Your task to perform on an android device: Search for pizza restaurants on Maps Image 0: 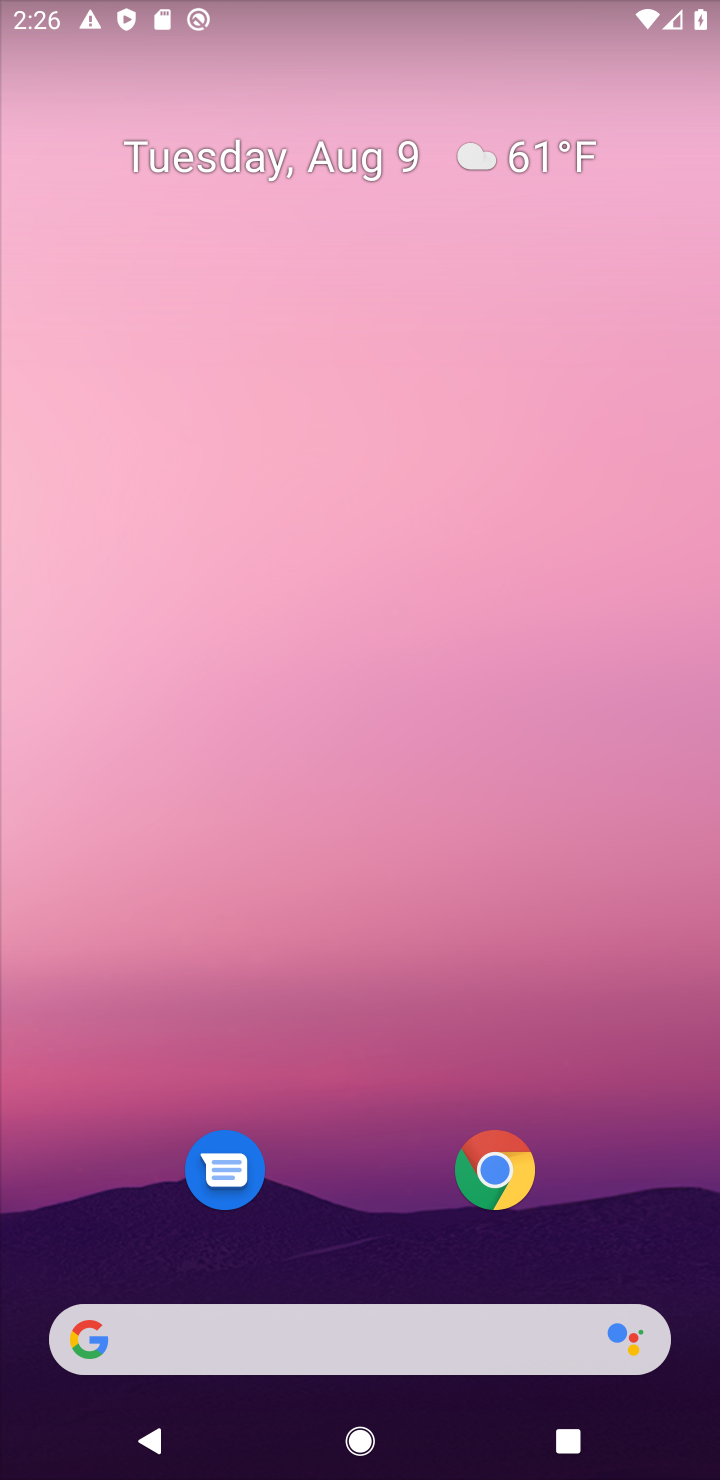
Step 0: press home button
Your task to perform on an android device: Search for pizza restaurants on Maps Image 1: 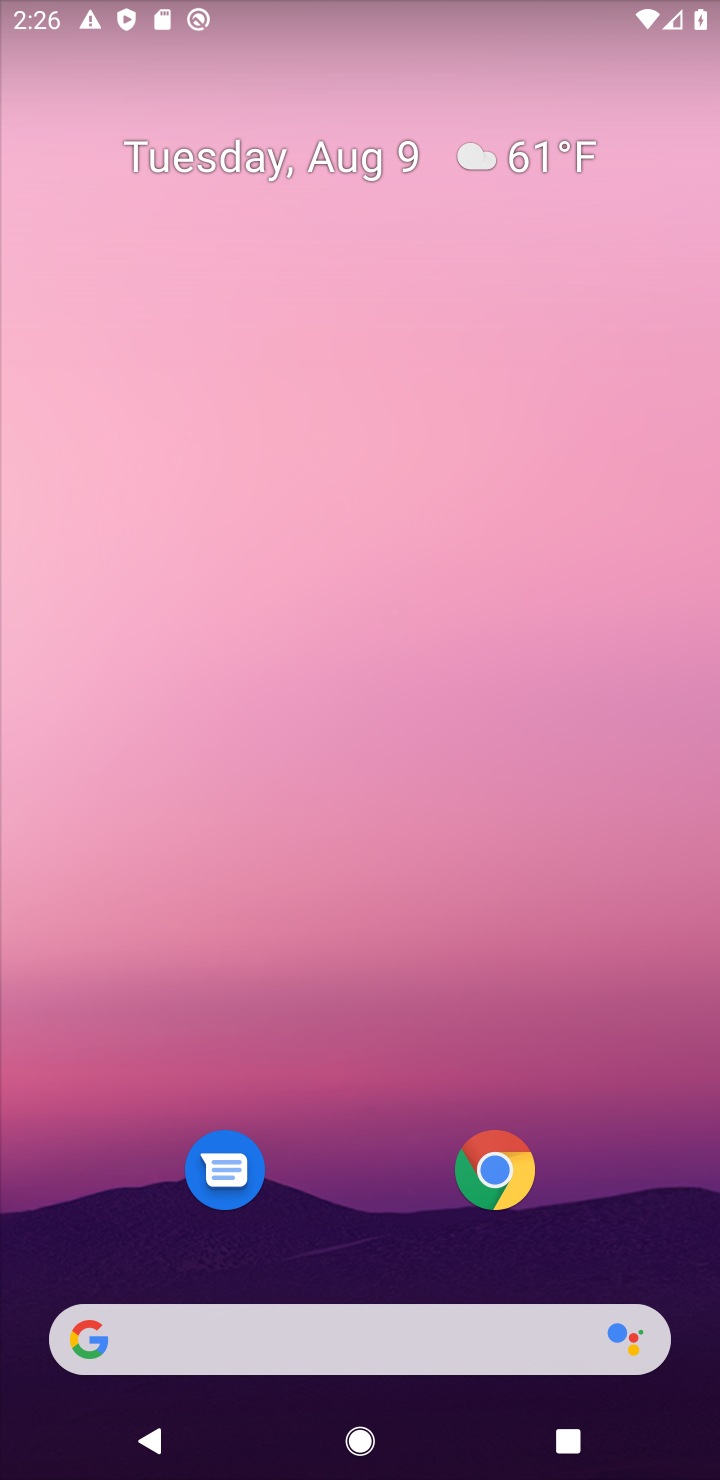
Step 1: press home button
Your task to perform on an android device: Search for pizza restaurants on Maps Image 2: 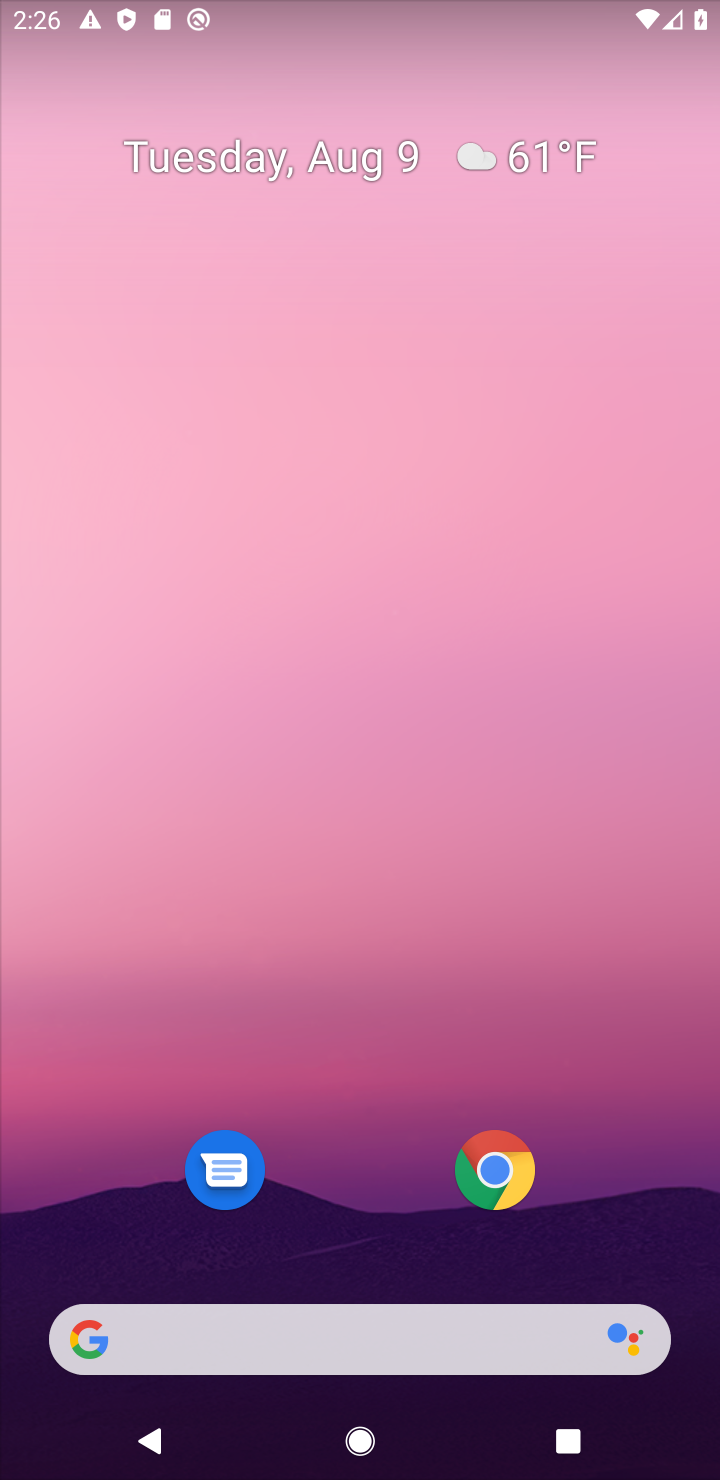
Step 2: drag from (391, 62) to (518, 48)
Your task to perform on an android device: Search for pizza restaurants on Maps Image 3: 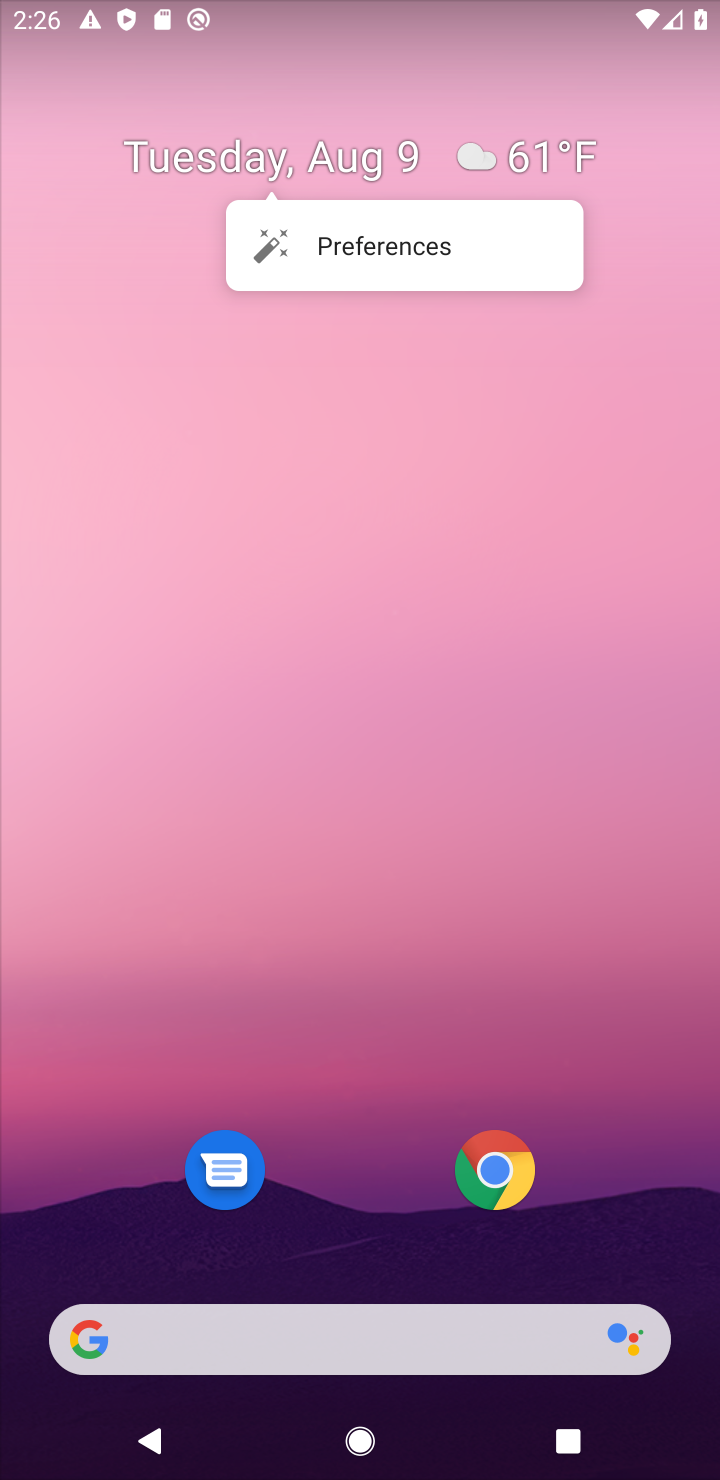
Step 3: drag from (324, 547) to (295, 58)
Your task to perform on an android device: Search for pizza restaurants on Maps Image 4: 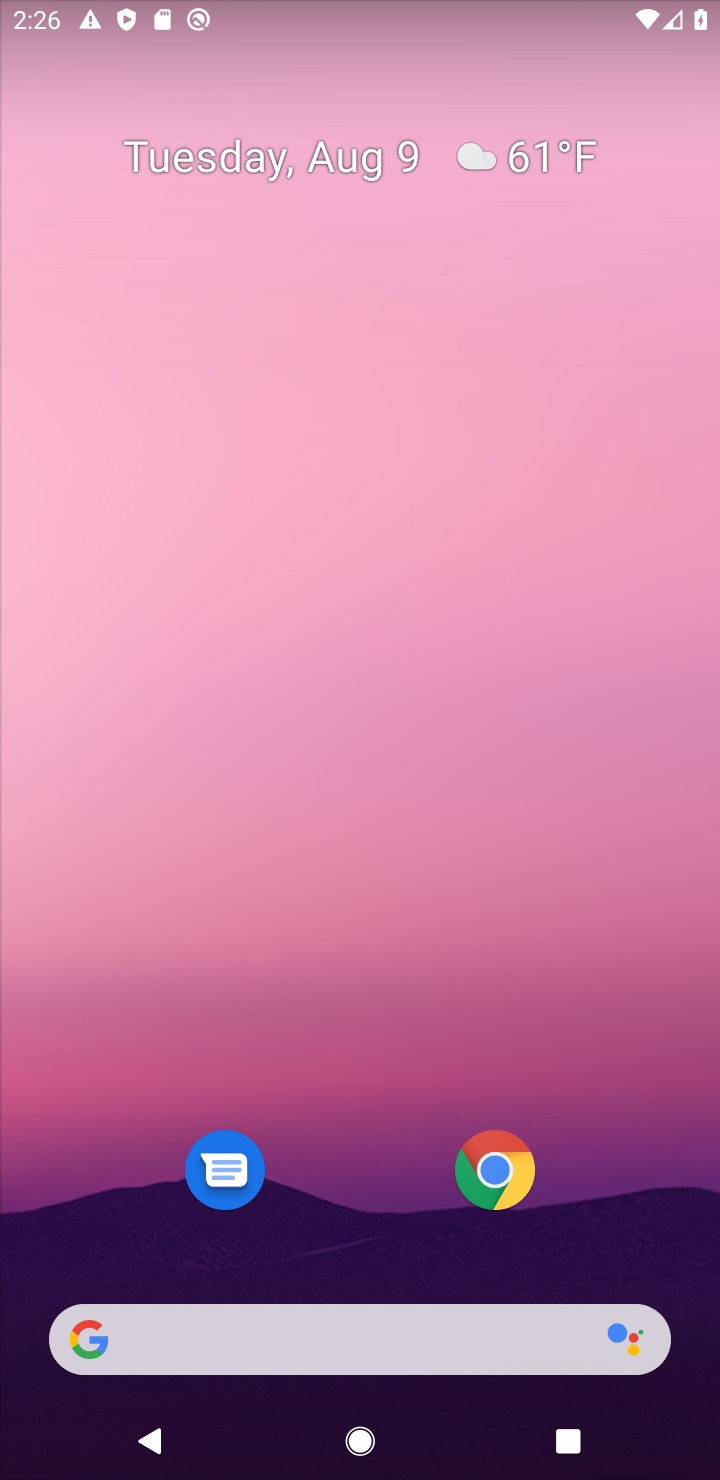
Step 4: drag from (376, 1240) to (483, 117)
Your task to perform on an android device: Search for pizza restaurants on Maps Image 5: 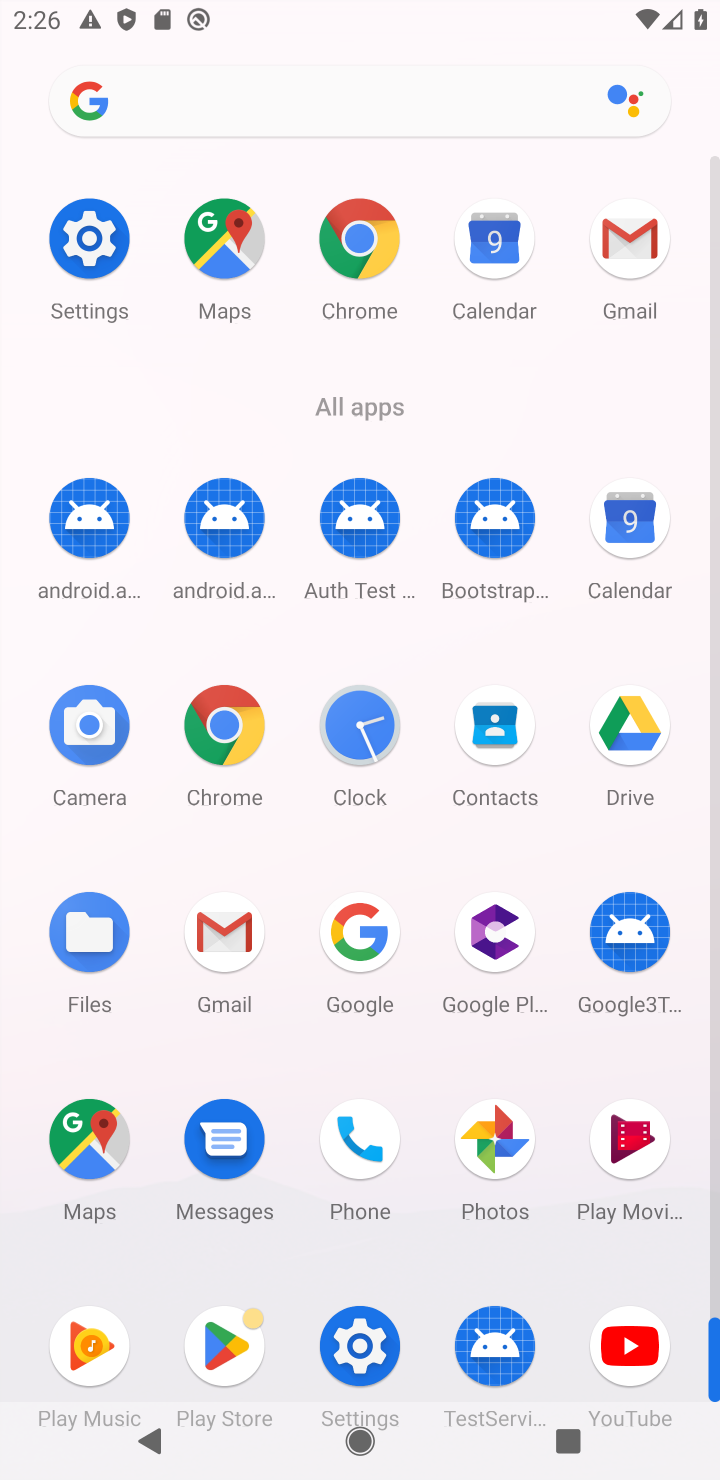
Step 5: click (93, 1166)
Your task to perform on an android device: Search for pizza restaurants on Maps Image 6: 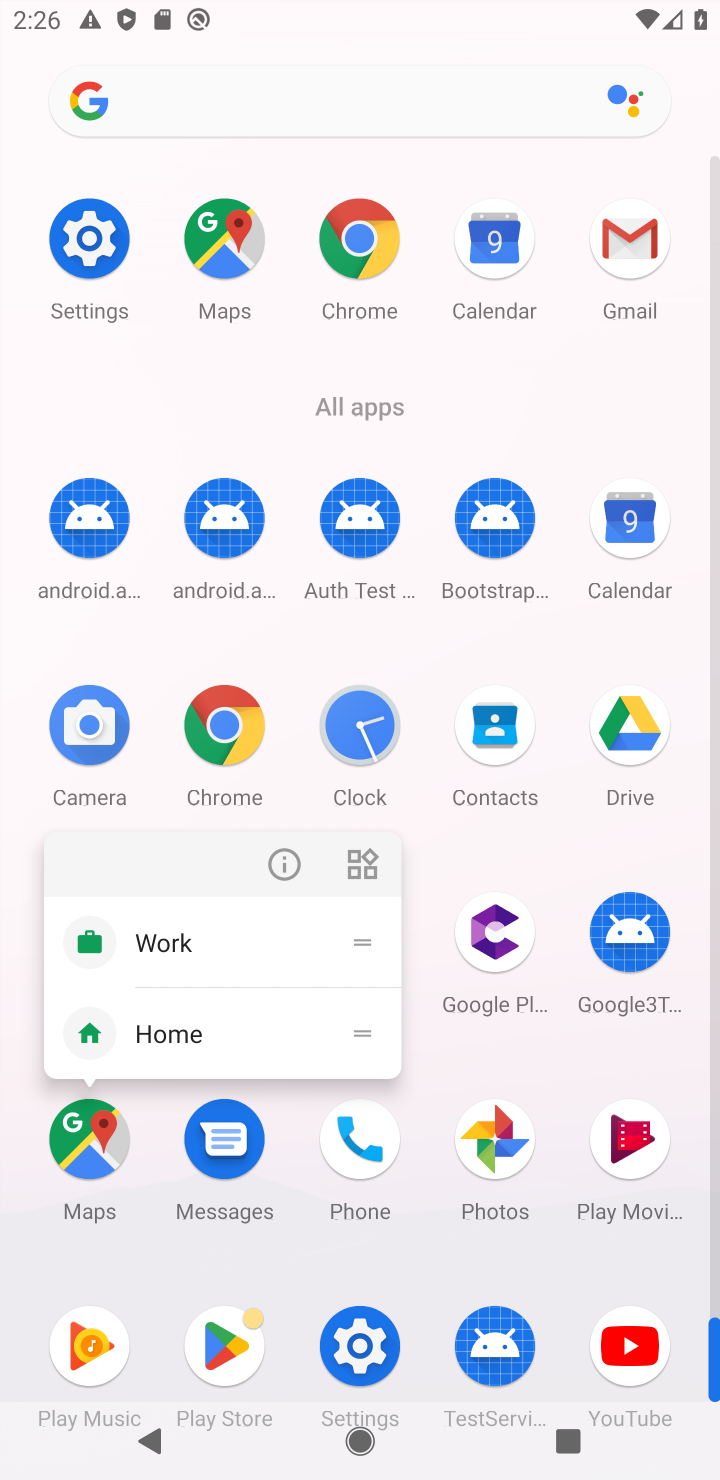
Step 6: click (93, 1166)
Your task to perform on an android device: Search for pizza restaurants on Maps Image 7: 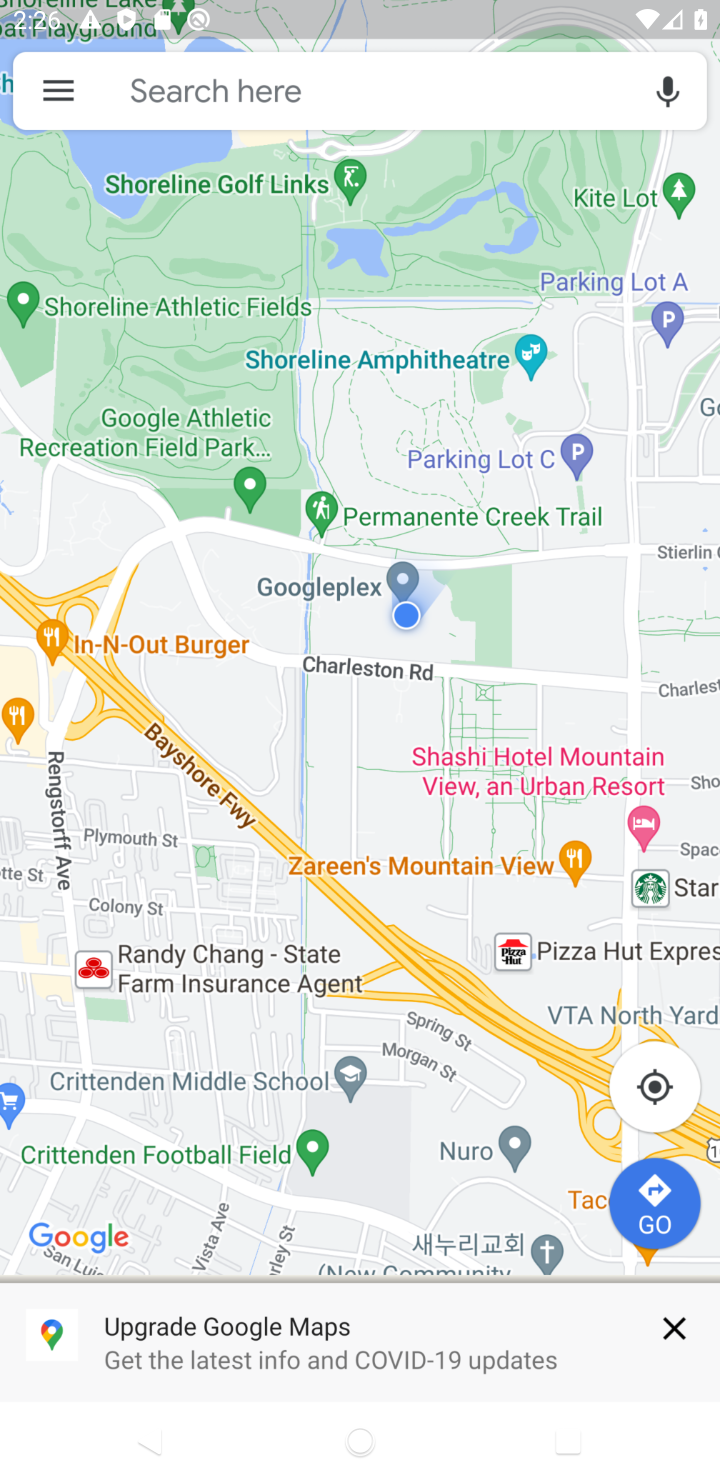
Step 7: click (444, 109)
Your task to perform on an android device: Search for pizza restaurants on Maps Image 8: 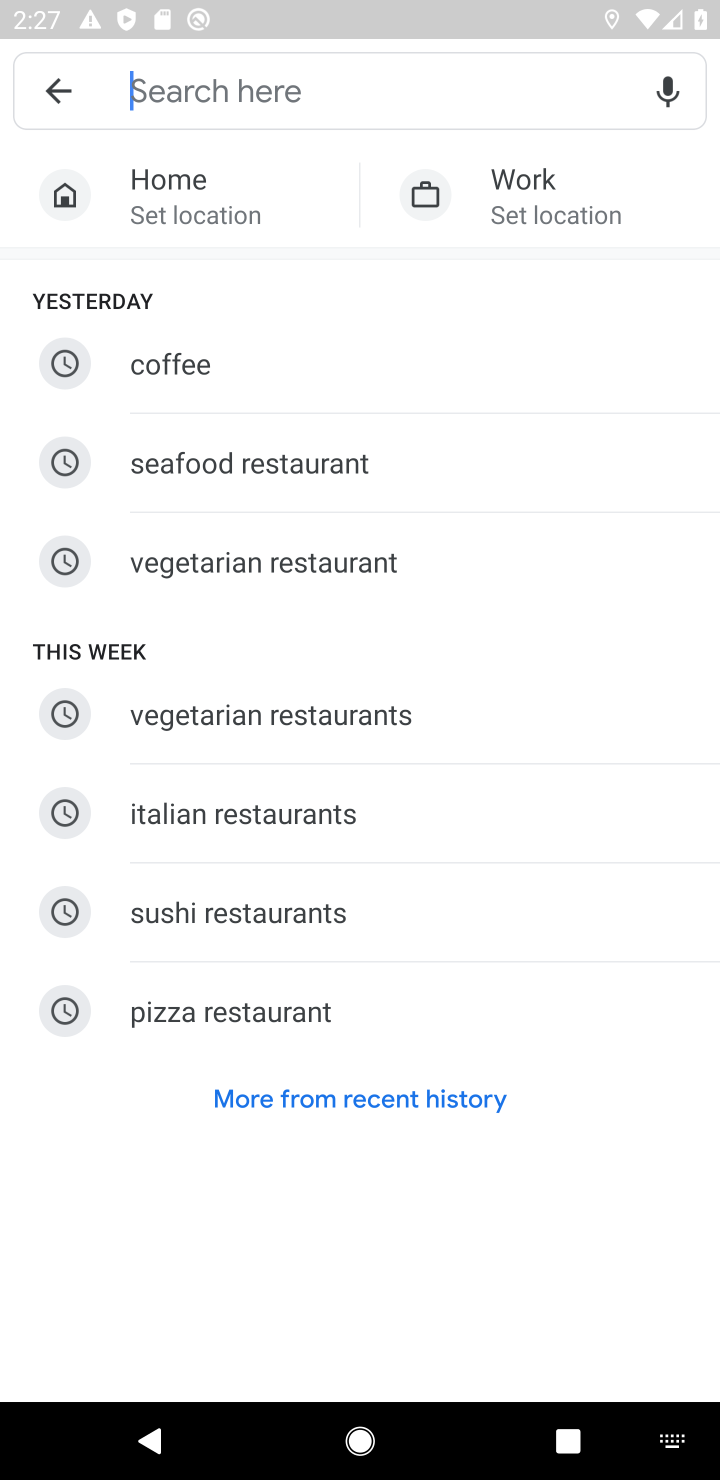
Step 8: type "Pizza restaurants"
Your task to perform on an android device: Search for pizza restaurants on Maps Image 9: 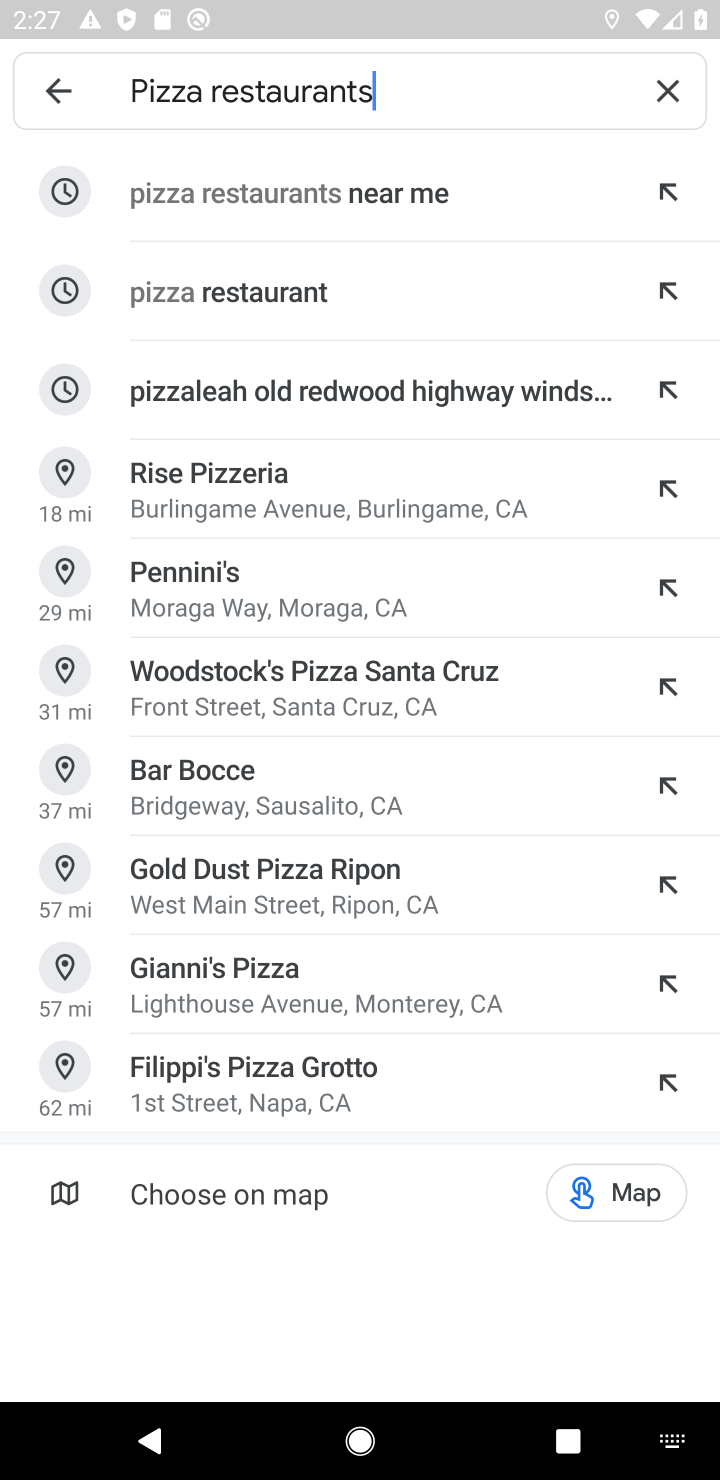
Step 9: click (359, 195)
Your task to perform on an android device: Search for pizza restaurants on Maps Image 10: 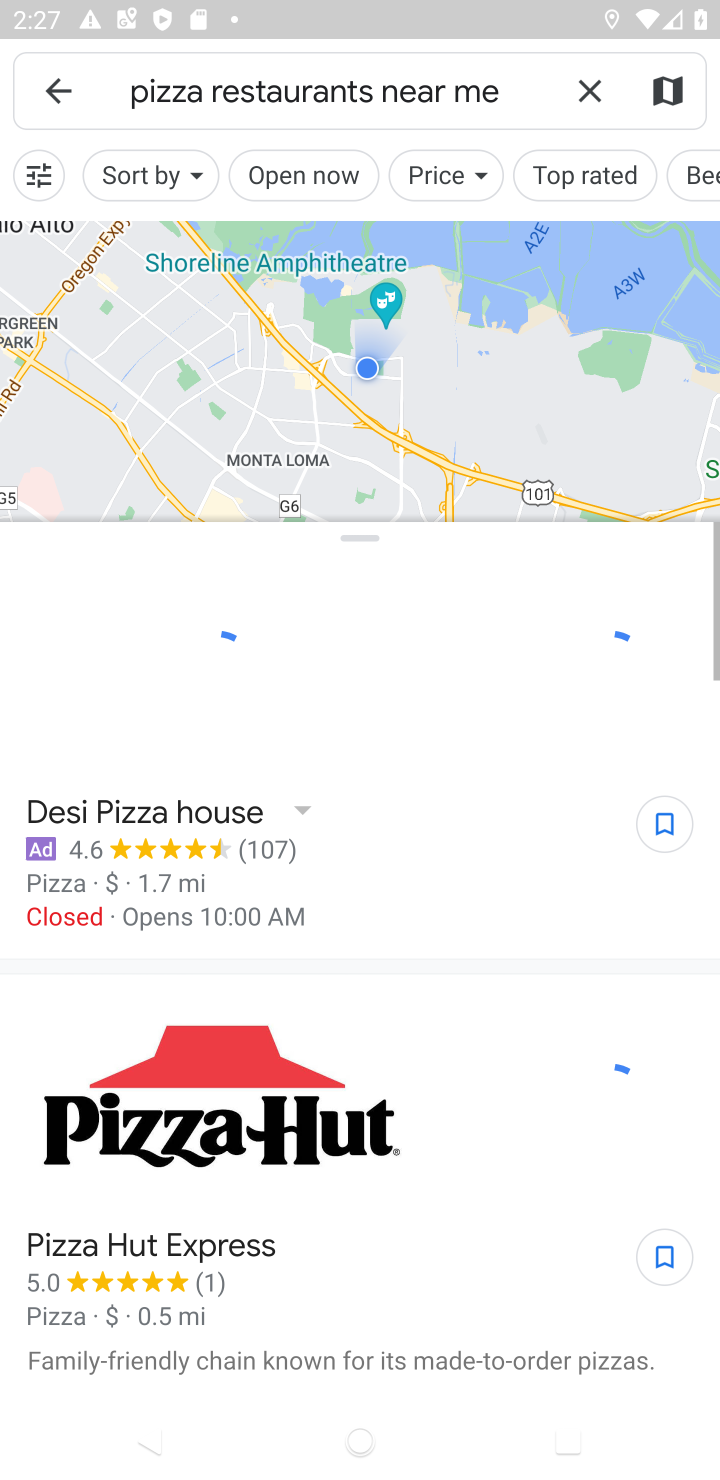
Step 10: task complete